Your task to perform on an android device: When is my next meeting? Image 0: 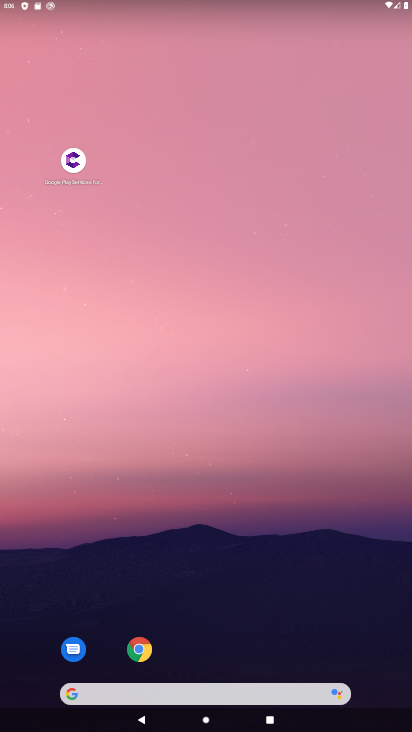
Step 0: drag from (57, 706) to (286, 177)
Your task to perform on an android device: When is my next meeting? Image 1: 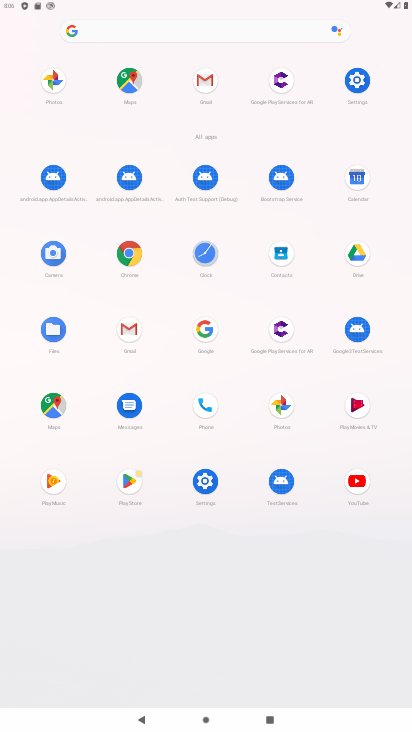
Step 1: click (343, 181)
Your task to perform on an android device: When is my next meeting? Image 2: 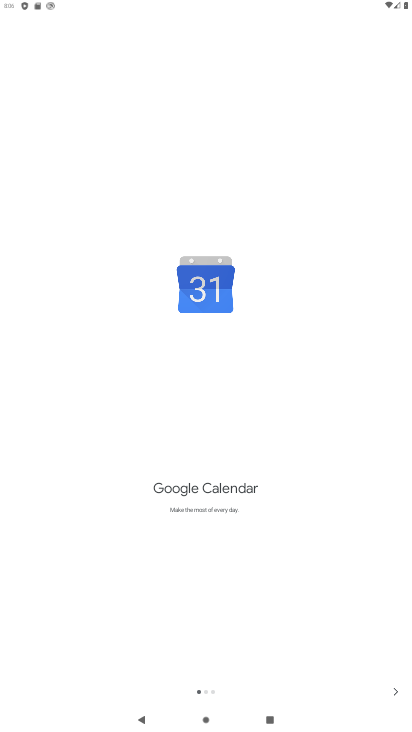
Step 2: click (392, 693)
Your task to perform on an android device: When is my next meeting? Image 3: 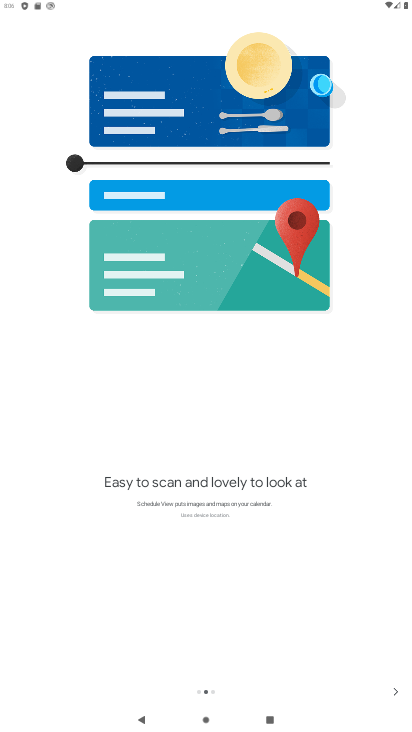
Step 3: click (401, 688)
Your task to perform on an android device: When is my next meeting? Image 4: 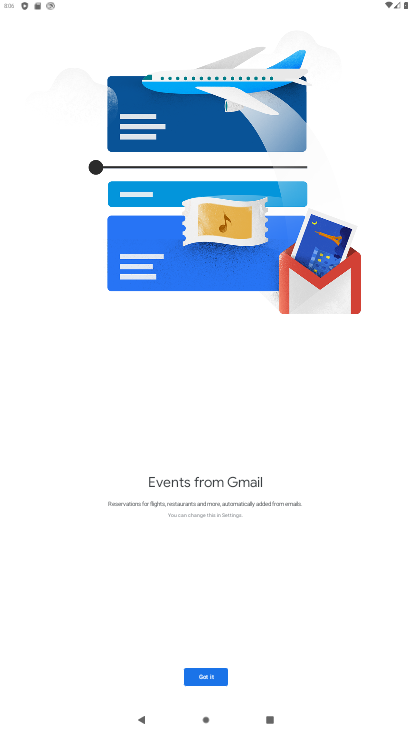
Step 4: click (212, 679)
Your task to perform on an android device: When is my next meeting? Image 5: 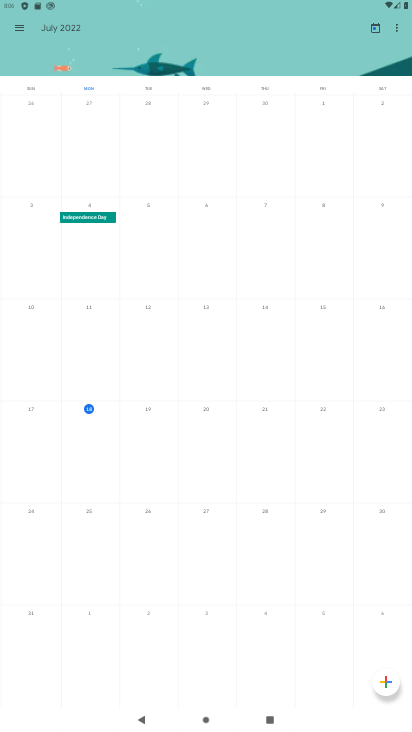
Step 5: task complete